Your task to perform on an android device: check out phone information Image 0: 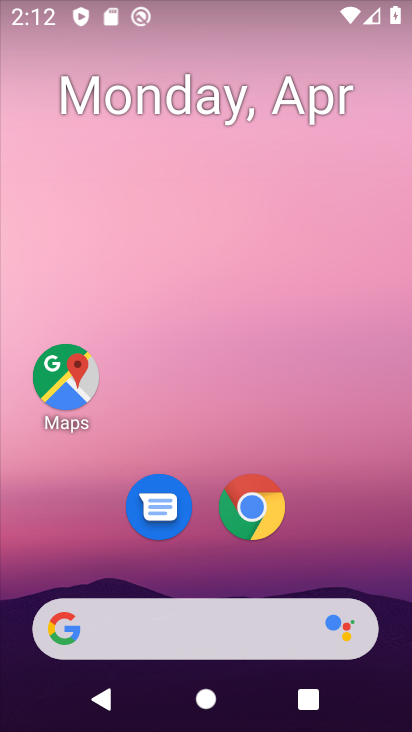
Step 0: drag from (397, 517) to (364, 50)
Your task to perform on an android device: check out phone information Image 1: 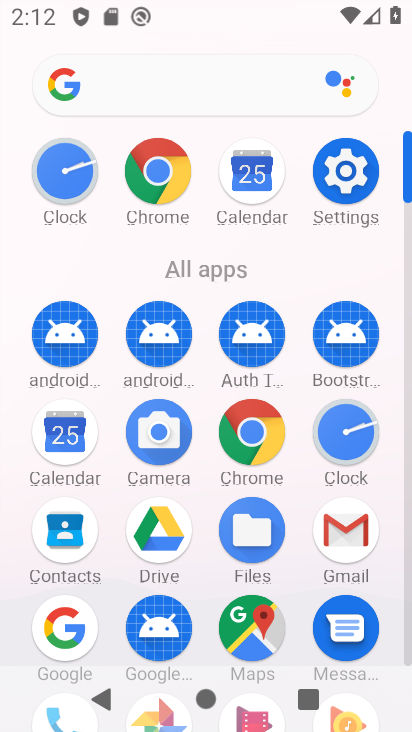
Step 1: click (407, 650)
Your task to perform on an android device: check out phone information Image 2: 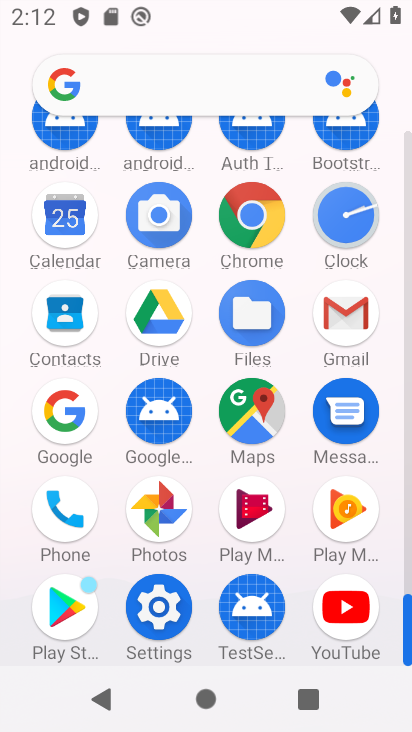
Step 2: click (153, 604)
Your task to perform on an android device: check out phone information Image 3: 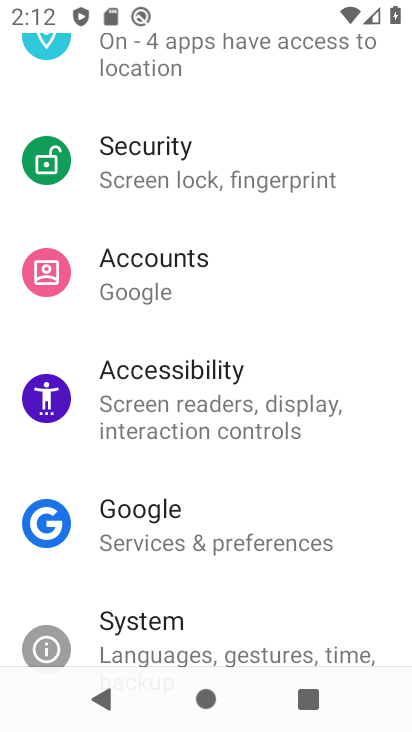
Step 3: drag from (359, 610) to (367, 147)
Your task to perform on an android device: check out phone information Image 4: 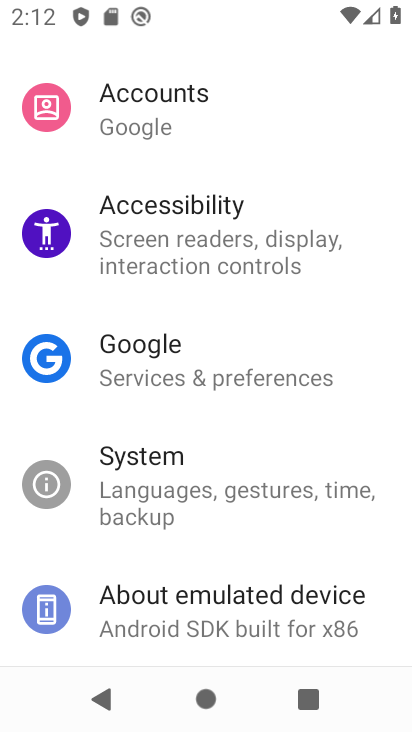
Step 4: click (155, 614)
Your task to perform on an android device: check out phone information Image 5: 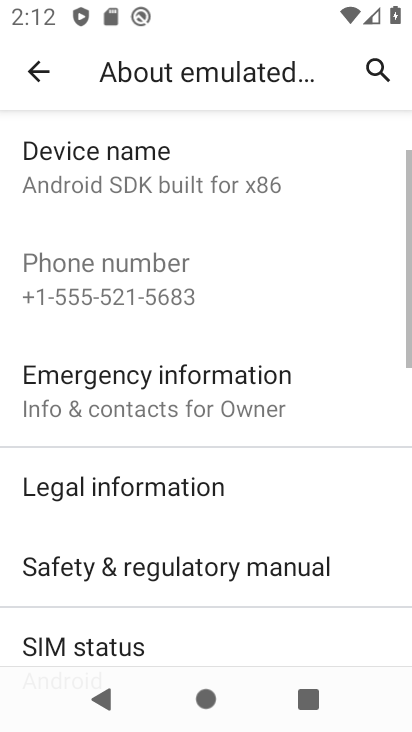
Step 5: task complete